Your task to perform on an android device: turn off location Image 0: 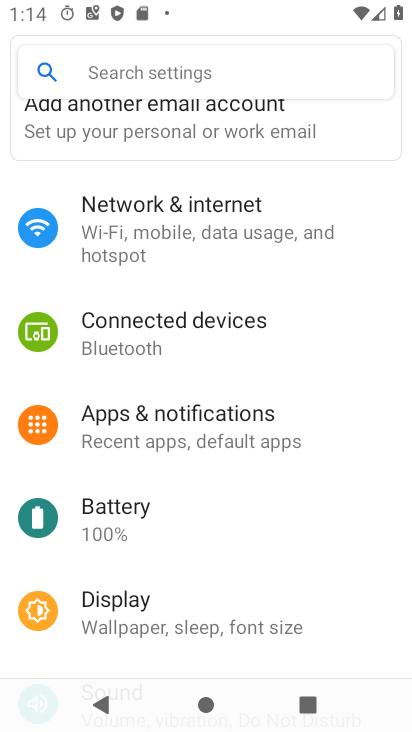
Step 0: press home button
Your task to perform on an android device: turn off location Image 1: 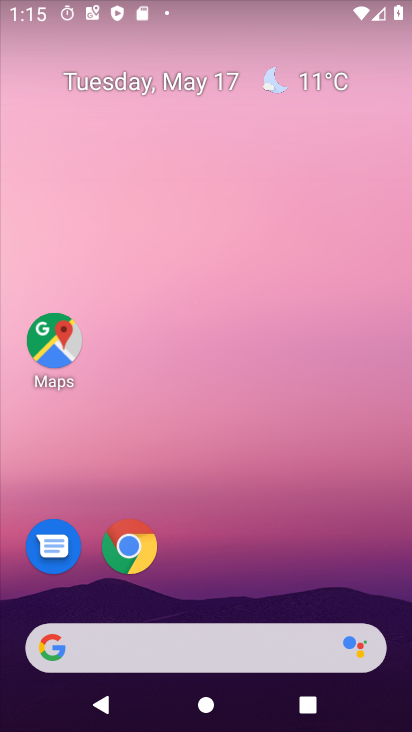
Step 1: drag from (202, 640) to (363, 44)
Your task to perform on an android device: turn off location Image 2: 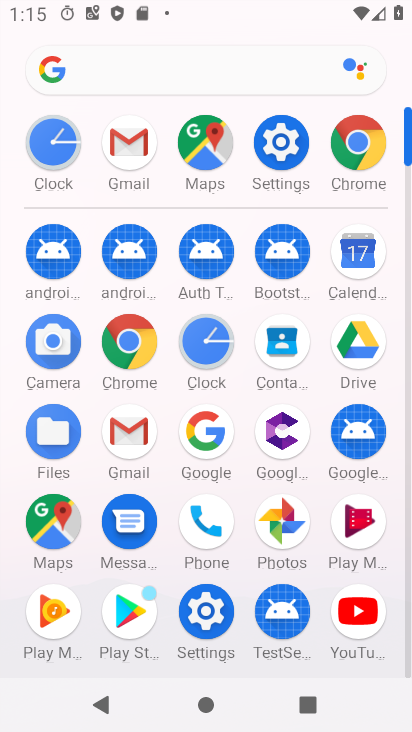
Step 2: click (273, 148)
Your task to perform on an android device: turn off location Image 3: 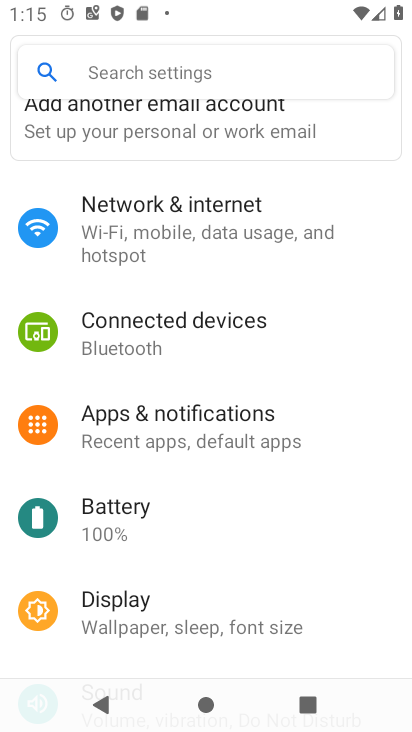
Step 3: drag from (181, 576) to (287, 220)
Your task to perform on an android device: turn off location Image 4: 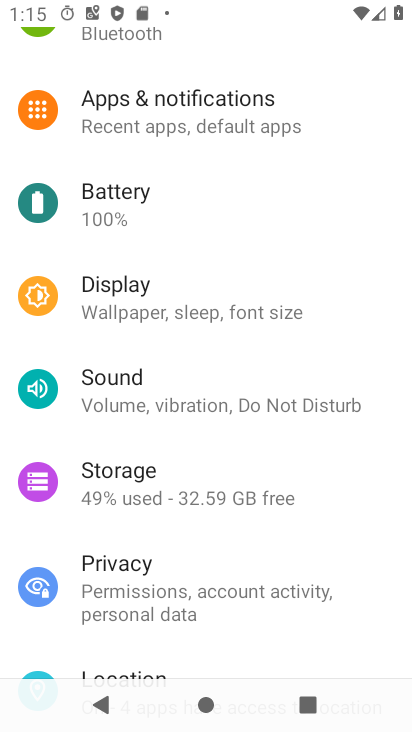
Step 4: drag from (230, 620) to (370, 185)
Your task to perform on an android device: turn off location Image 5: 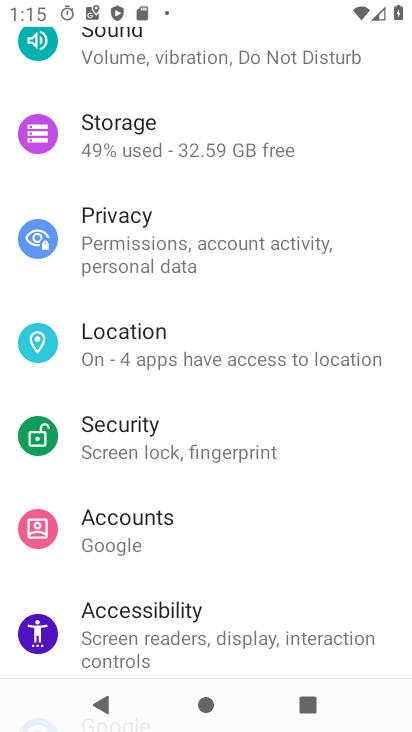
Step 5: click (182, 343)
Your task to perform on an android device: turn off location Image 6: 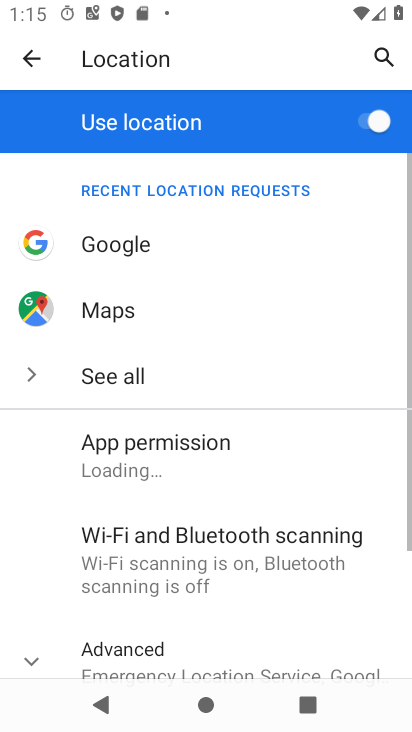
Step 6: click (371, 119)
Your task to perform on an android device: turn off location Image 7: 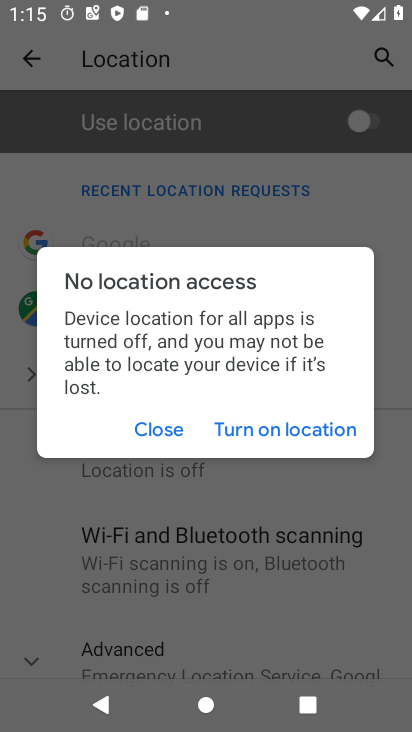
Step 7: click (165, 440)
Your task to perform on an android device: turn off location Image 8: 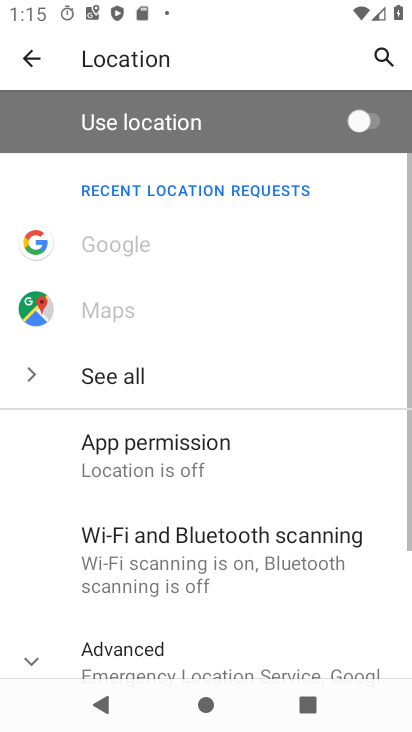
Step 8: task complete